Your task to perform on an android device: allow notifications from all sites in the chrome app Image 0: 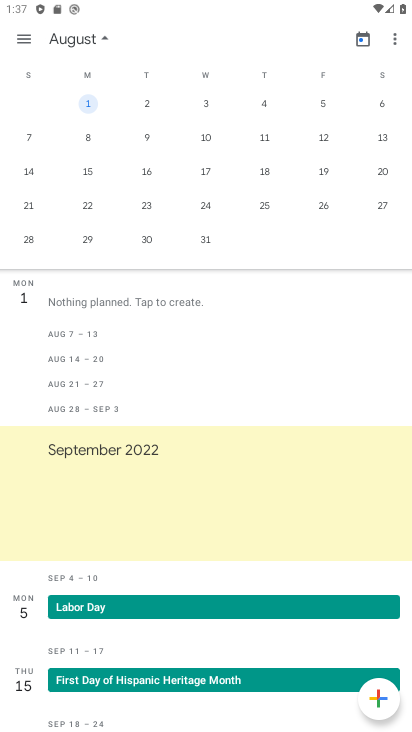
Step 0: press home button
Your task to perform on an android device: allow notifications from all sites in the chrome app Image 1: 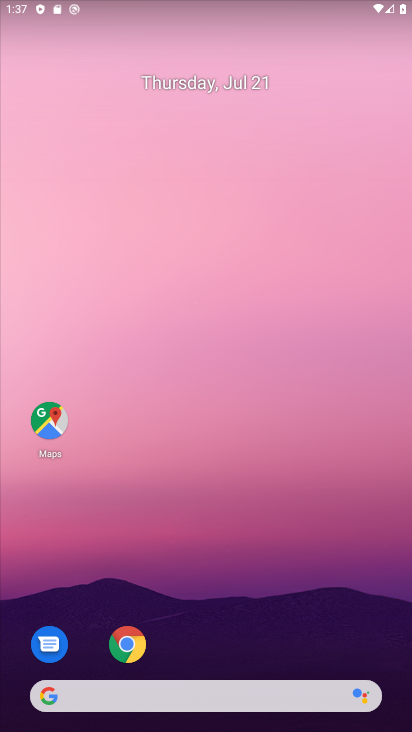
Step 1: click (127, 644)
Your task to perform on an android device: allow notifications from all sites in the chrome app Image 2: 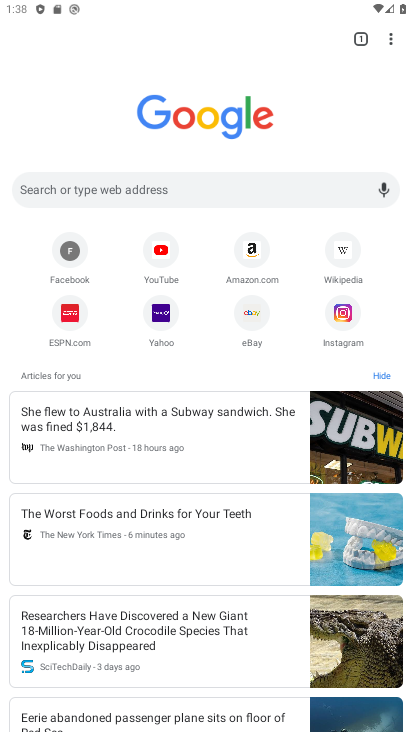
Step 2: click (390, 43)
Your task to perform on an android device: allow notifications from all sites in the chrome app Image 3: 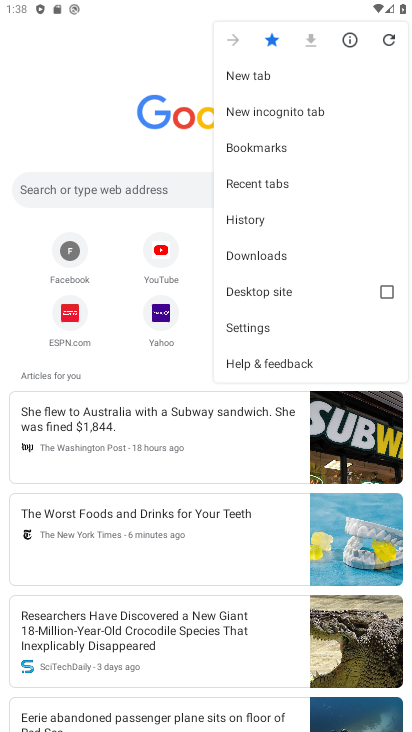
Step 3: click (240, 318)
Your task to perform on an android device: allow notifications from all sites in the chrome app Image 4: 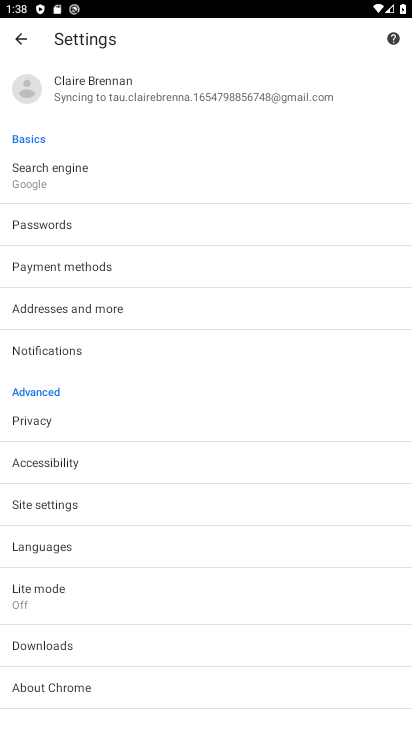
Step 4: click (102, 339)
Your task to perform on an android device: allow notifications from all sites in the chrome app Image 5: 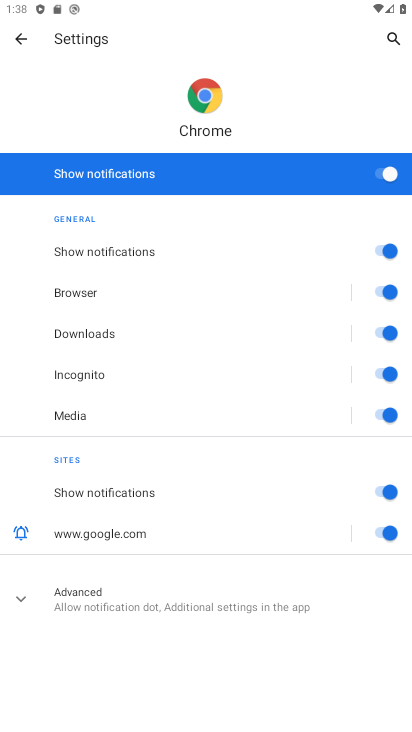
Step 5: task complete